Your task to perform on an android device: Empty the shopping cart on newegg. Add usb-c to usb-a to the cart on newegg Image 0: 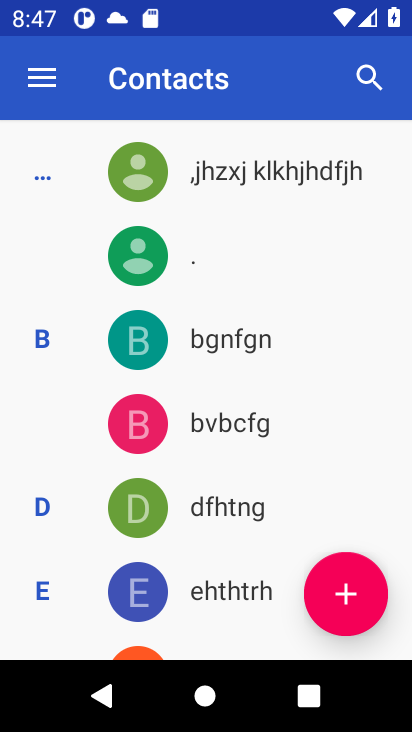
Step 0: press home button
Your task to perform on an android device: Empty the shopping cart on newegg. Add usb-c to usb-a to the cart on newegg Image 1: 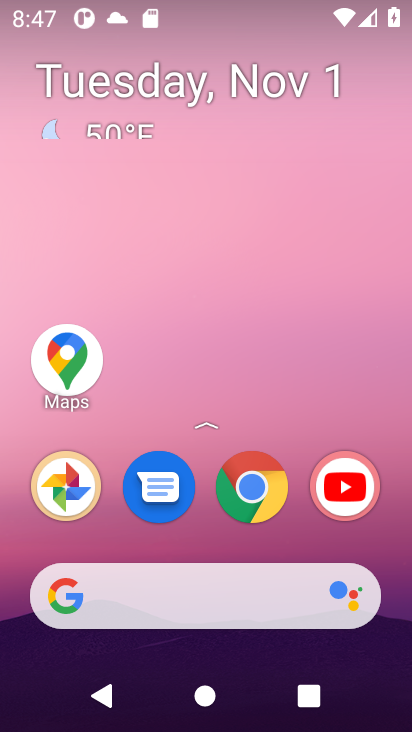
Step 1: drag from (206, 438) to (238, 15)
Your task to perform on an android device: Empty the shopping cart on newegg. Add usb-c to usb-a to the cart on newegg Image 2: 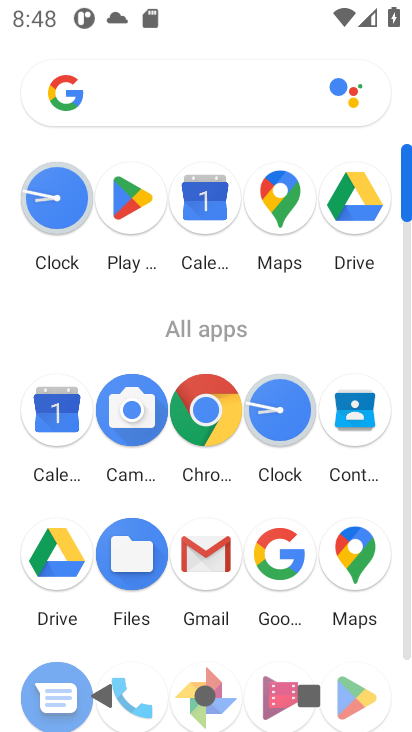
Step 2: click (208, 408)
Your task to perform on an android device: Empty the shopping cart on newegg. Add usb-c to usb-a to the cart on newegg Image 3: 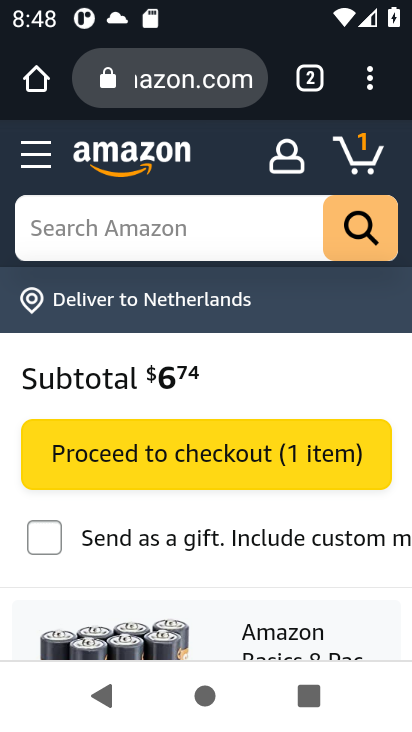
Step 3: click (166, 80)
Your task to perform on an android device: Empty the shopping cart on newegg. Add usb-c to usb-a to the cart on newegg Image 4: 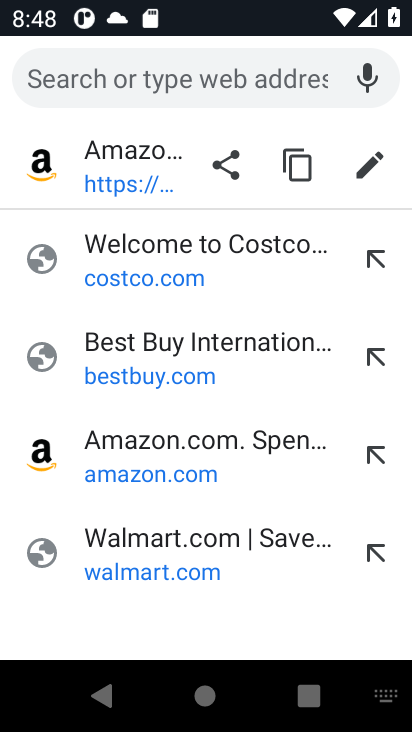
Step 4: type "newegg"
Your task to perform on an android device: Empty the shopping cart on newegg. Add usb-c to usb-a to the cart on newegg Image 5: 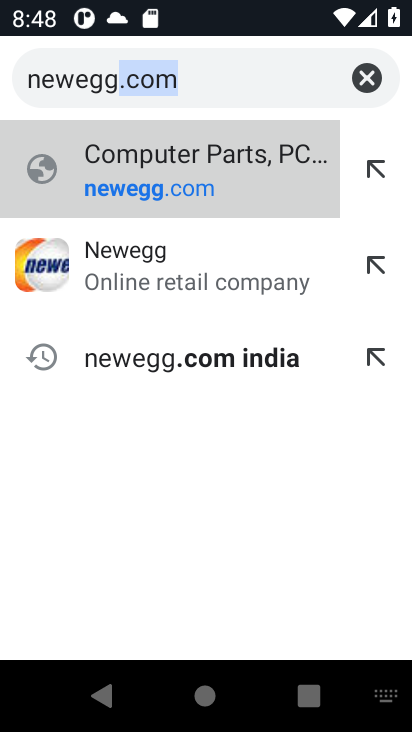
Step 5: click (194, 184)
Your task to perform on an android device: Empty the shopping cart on newegg. Add usb-c to usb-a to the cart on newegg Image 6: 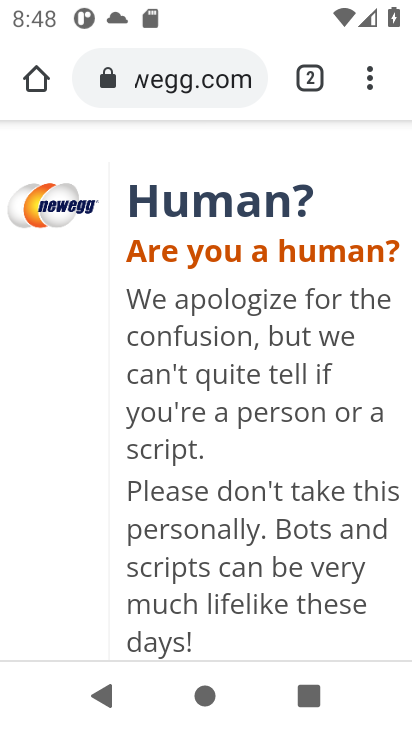
Step 6: press back button
Your task to perform on an android device: Empty the shopping cart on newegg. Add usb-c to usb-a to the cart on newegg Image 7: 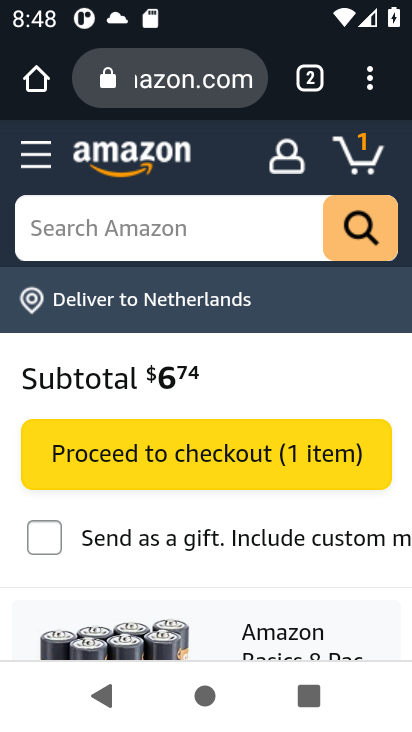
Step 7: click (149, 70)
Your task to perform on an android device: Empty the shopping cart on newegg. Add usb-c to usb-a to the cart on newegg Image 8: 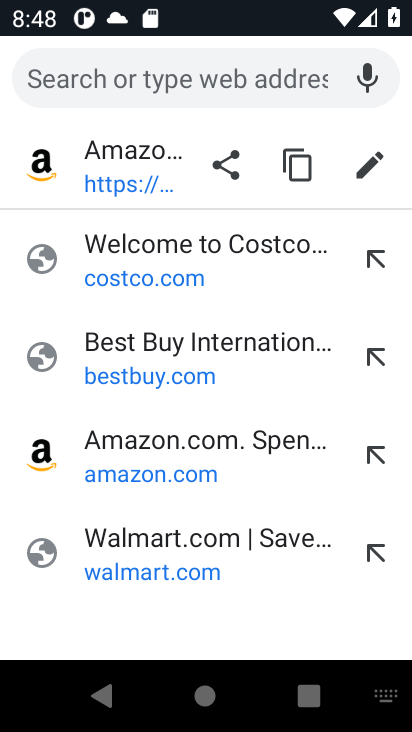
Step 8: type "newegg"
Your task to perform on an android device: Empty the shopping cart on newegg. Add usb-c to usb-a to the cart on newegg Image 9: 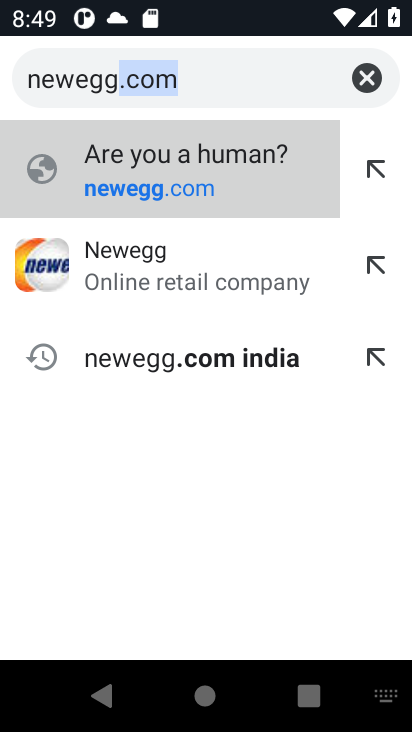
Step 9: click (156, 280)
Your task to perform on an android device: Empty the shopping cart on newegg. Add usb-c to usb-a to the cart on newegg Image 10: 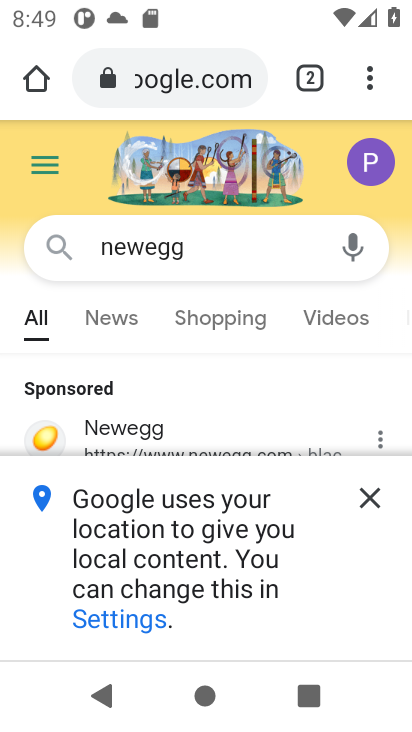
Step 10: click (366, 499)
Your task to perform on an android device: Empty the shopping cart on newegg. Add usb-c to usb-a to the cart on newegg Image 11: 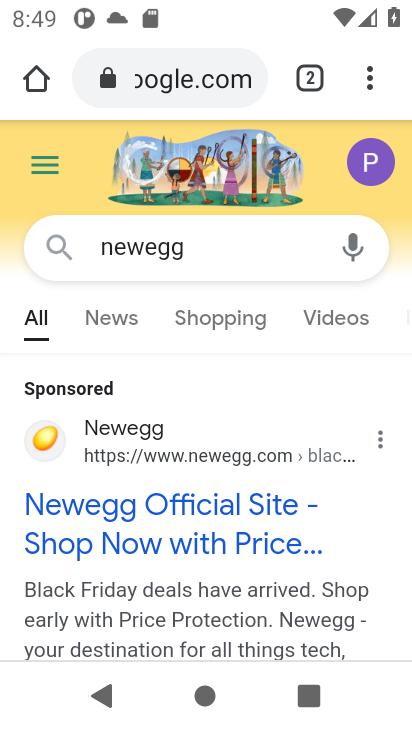
Step 11: click (92, 507)
Your task to perform on an android device: Empty the shopping cart on newegg. Add usb-c to usb-a to the cart on newegg Image 12: 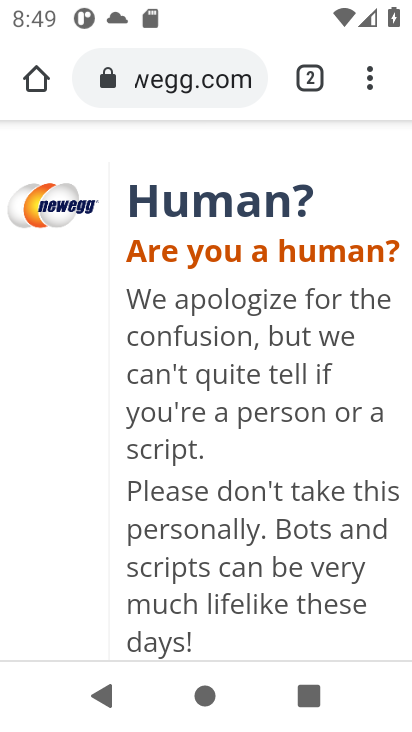
Step 12: press back button
Your task to perform on an android device: Empty the shopping cart on newegg. Add usb-c to usb-a to the cart on newegg Image 13: 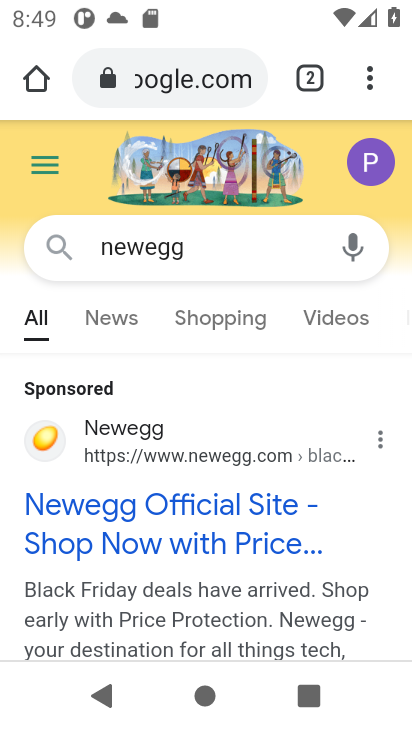
Step 13: drag from (183, 592) to (208, 208)
Your task to perform on an android device: Empty the shopping cart on newegg. Add usb-c to usb-a to the cart on newegg Image 14: 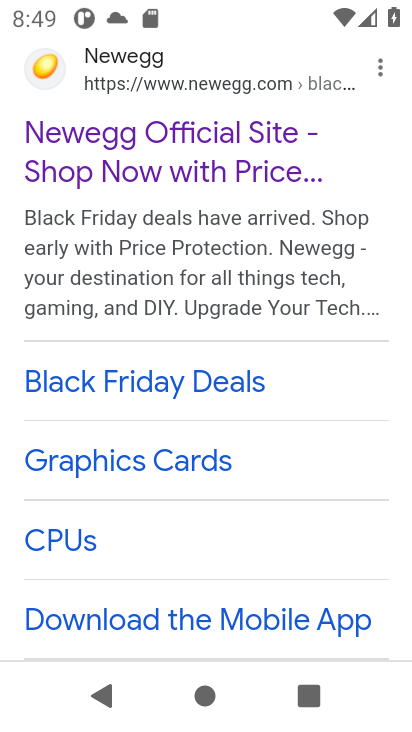
Step 14: drag from (223, 595) to (243, 208)
Your task to perform on an android device: Empty the shopping cart on newegg. Add usb-c to usb-a to the cart on newegg Image 15: 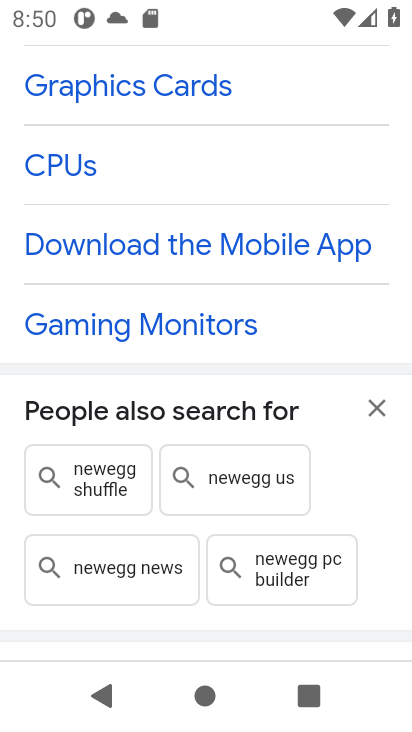
Step 15: drag from (332, 396) to (315, 254)
Your task to perform on an android device: Empty the shopping cart on newegg. Add usb-c to usb-a to the cart on newegg Image 16: 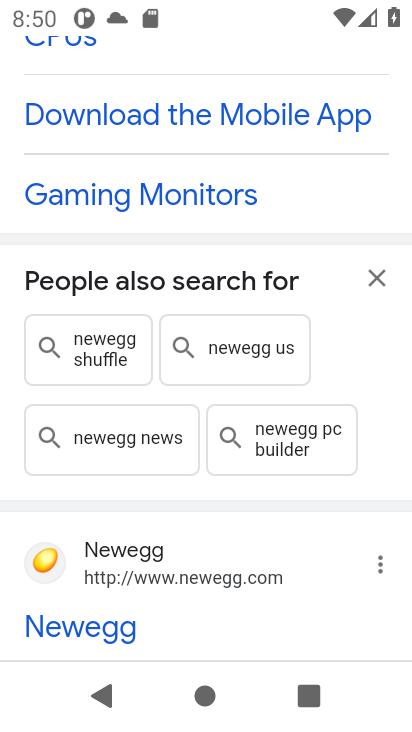
Step 16: drag from (342, 494) to (324, 325)
Your task to perform on an android device: Empty the shopping cart on newegg. Add usb-c to usb-a to the cart on newegg Image 17: 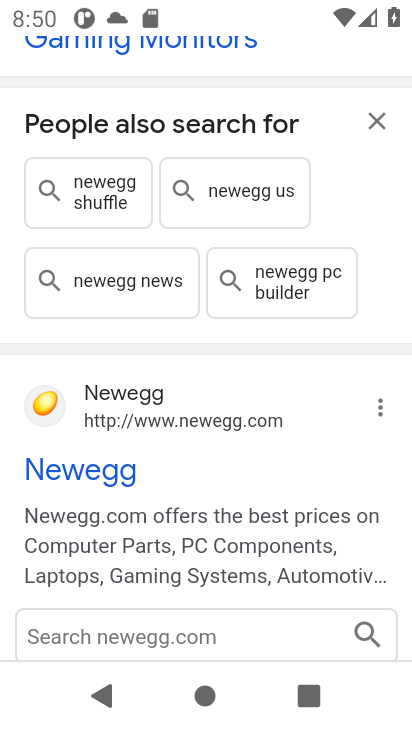
Step 17: click (84, 469)
Your task to perform on an android device: Empty the shopping cart on newegg. Add usb-c to usb-a to the cart on newegg Image 18: 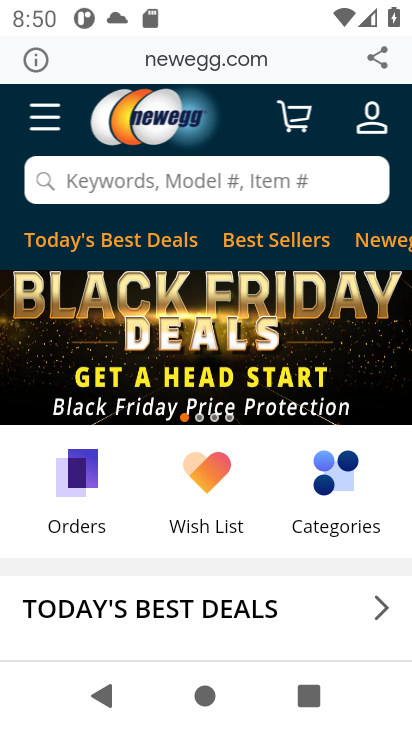
Step 18: drag from (202, 563) to (211, 279)
Your task to perform on an android device: Empty the shopping cart on newegg. Add usb-c to usb-a to the cart on newegg Image 19: 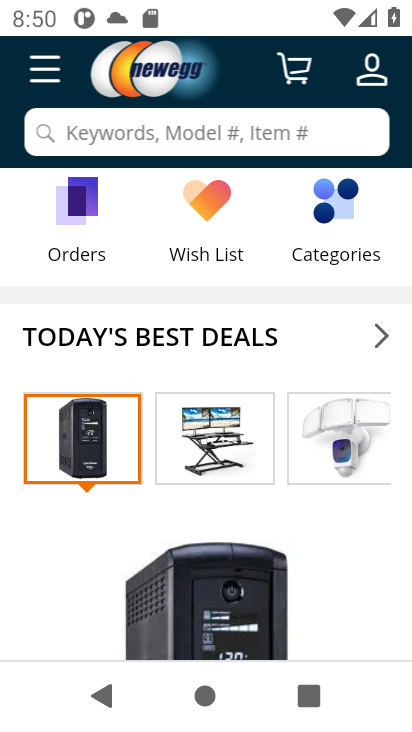
Step 19: click (115, 128)
Your task to perform on an android device: Empty the shopping cart on newegg. Add usb-c to usb-a to the cart on newegg Image 20: 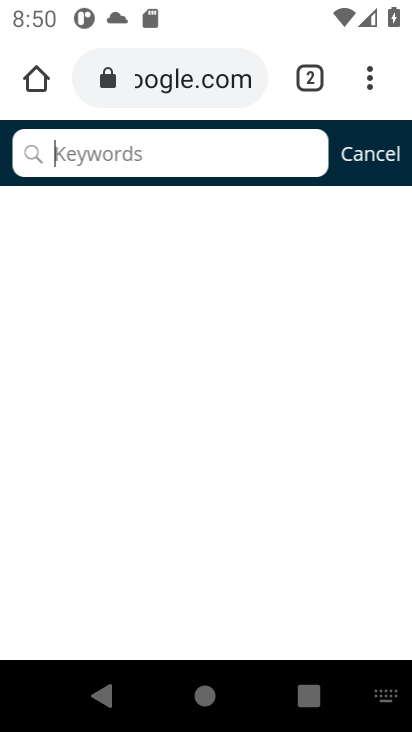
Step 20: type "usb-c to usb-a"
Your task to perform on an android device: Empty the shopping cart on newegg. Add usb-c to usb-a to the cart on newegg Image 21: 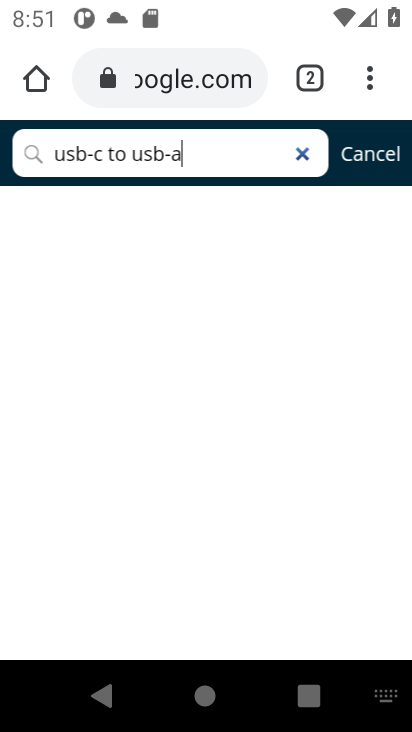
Step 21: task complete